Your task to perform on an android device: Is it going to rain this weekend? Image 0: 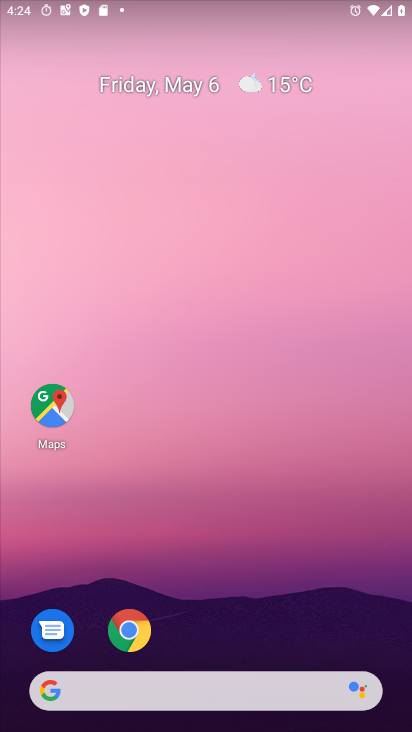
Step 0: click (294, 89)
Your task to perform on an android device: Is it going to rain this weekend? Image 1: 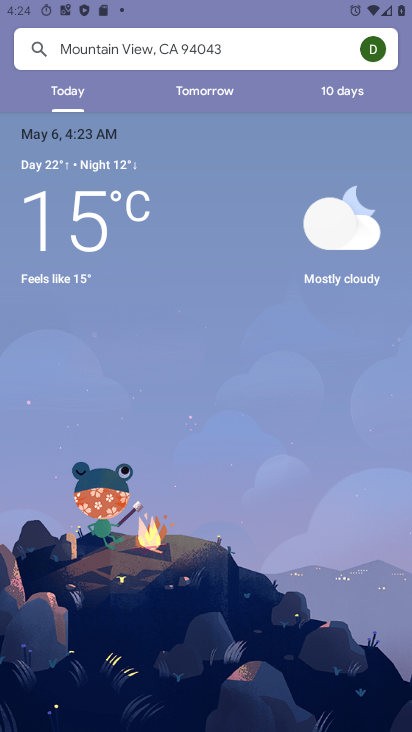
Step 1: click (332, 106)
Your task to perform on an android device: Is it going to rain this weekend? Image 2: 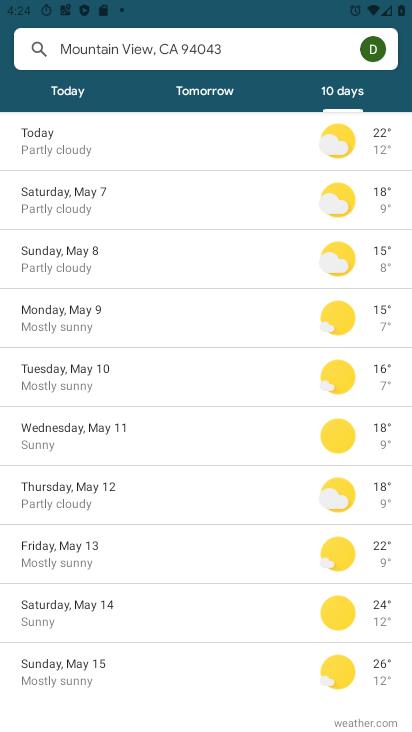
Step 2: task complete